Your task to perform on an android device: turn off location Image 0: 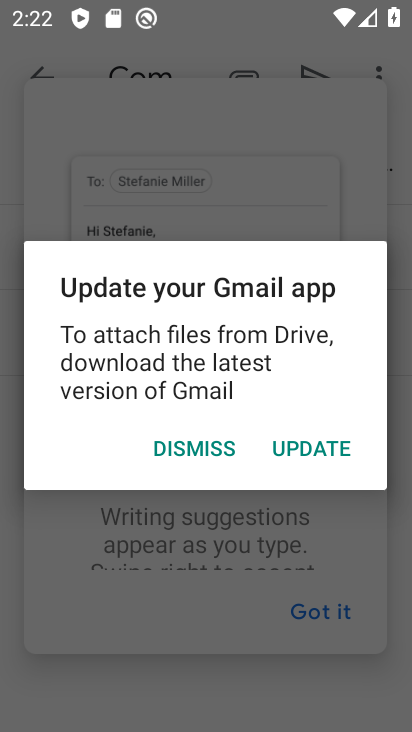
Step 0: press home button
Your task to perform on an android device: turn off location Image 1: 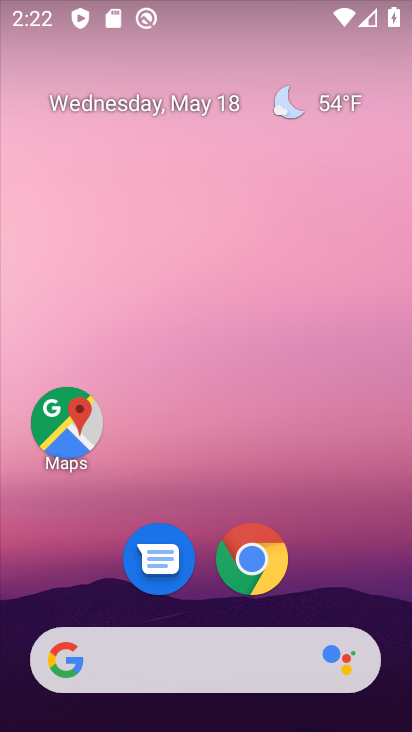
Step 1: drag from (104, 557) to (183, 133)
Your task to perform on an android device: turn off location Image 2: 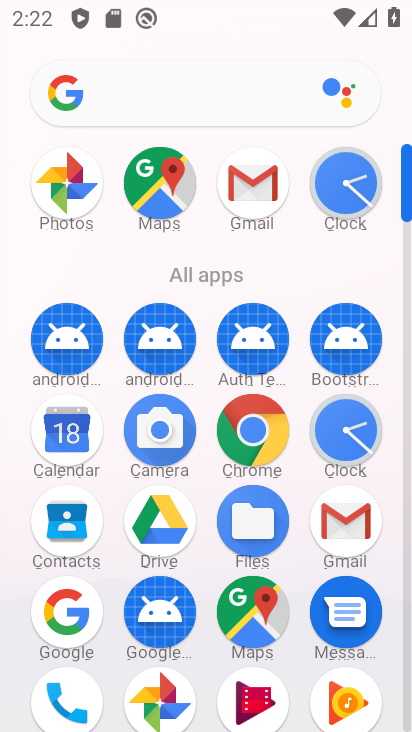
Step 2: drag from (159, 598) to (209, 162)
Your task to perform on an android device: turn off location Image 3: 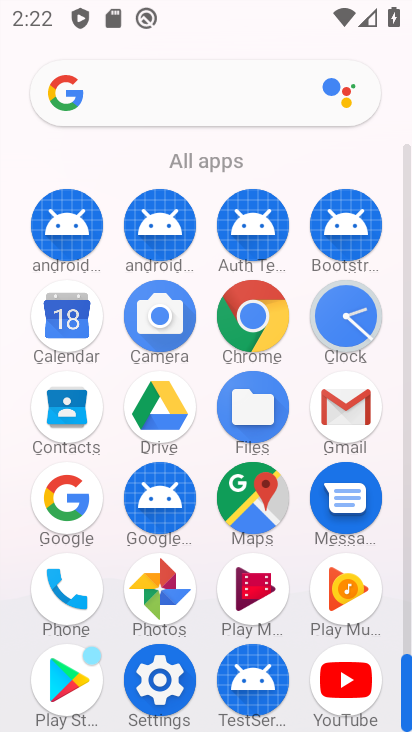
Step 3: click (151, 685)
Your task to perform on an android device: turn off location Image 4: 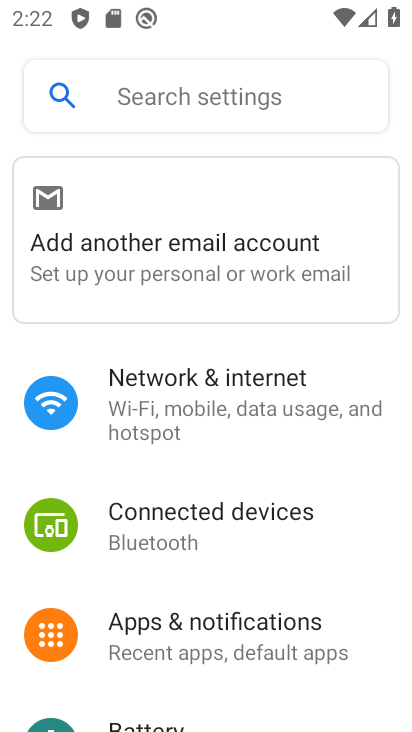
Step 4: drag from (165, 710) to (236, 282)
Your task to perform on an android device: turn off location Image 5: 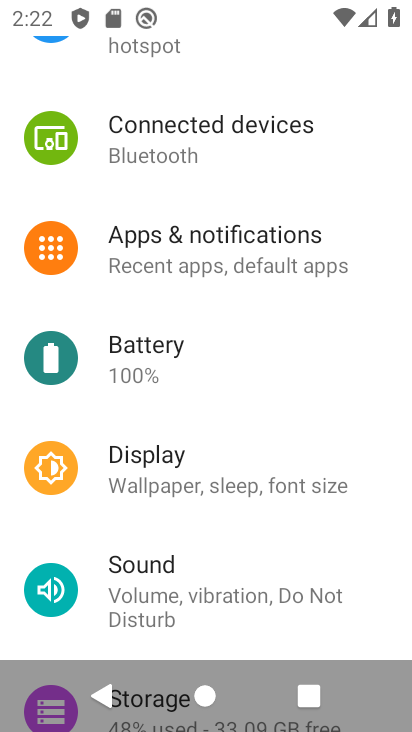
Step 5: drag from (175, 547) to (186, 298)
Your task to perform on an android device: turn off location Image 6: 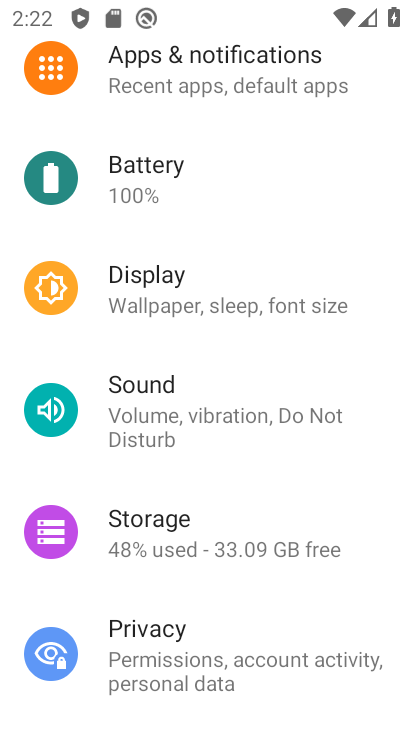
Step 6: drag from (157, 665) to (163, 307)
Your task to perform on an android device: turn off location Image 7: 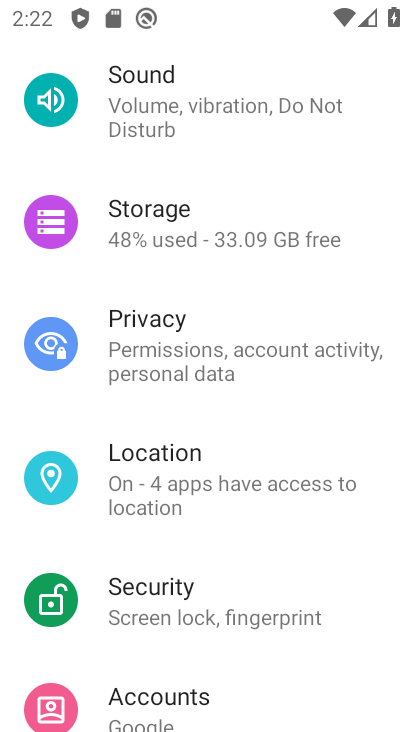
Step 7: click (156, 472)
Your task to perform on an android device: turn off location Image 8: 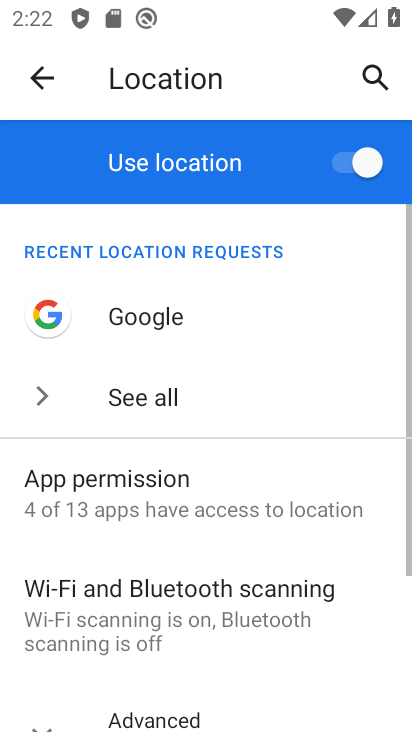
Step 8: drag from (180, 680) to (175, 344)
Your task to perform on an android device: turn off location Image 9: 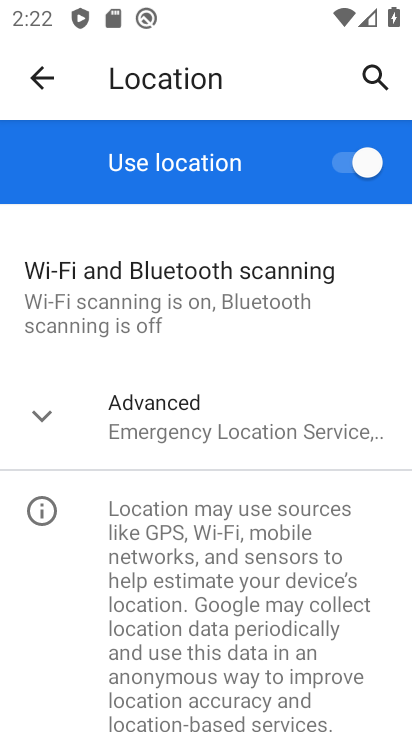
Step 9: click (330, 162)
Your task to perform on an android device: turn off location Image 10: 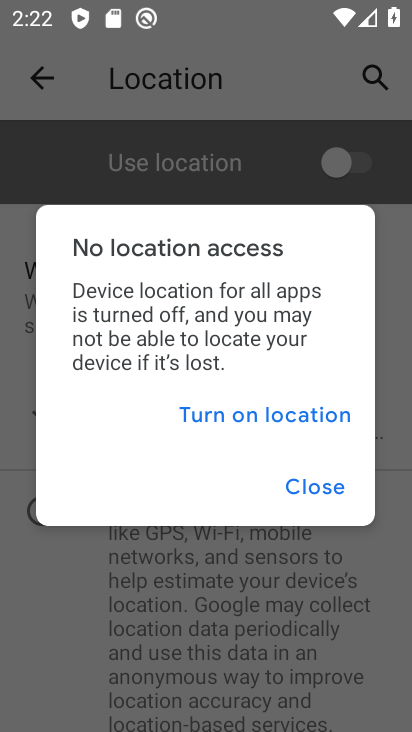
Step 10: click (305, 481)
Your task to perform on an android device: turn off location Image 11: 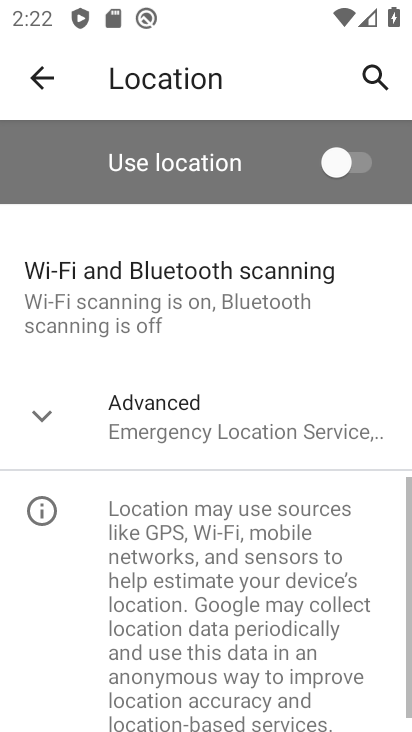
Step 11: task complete